Your task to perform on an android device: Open Maps and search for coffee Image 0: 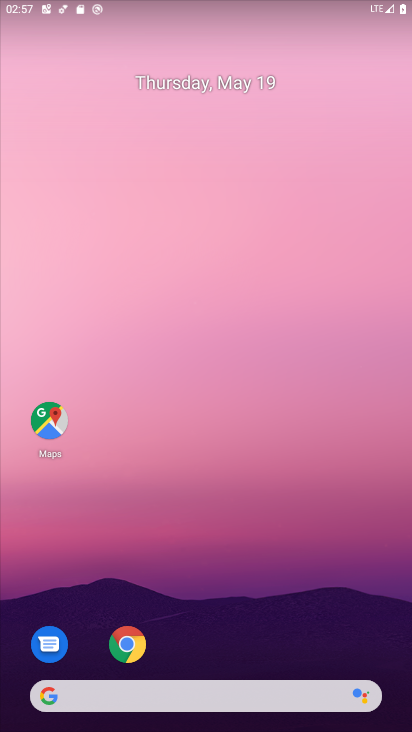
Step 0: click (52, 420)
Your task to perform on an android device: Open Maps and search for coffee Image 1: 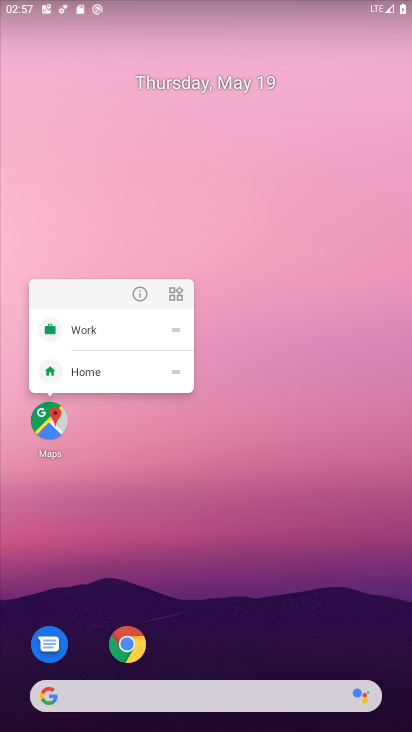
Step 1: click (54, 413)
Your task to perform on an android device: Open Maps and search for coffee Image 2: 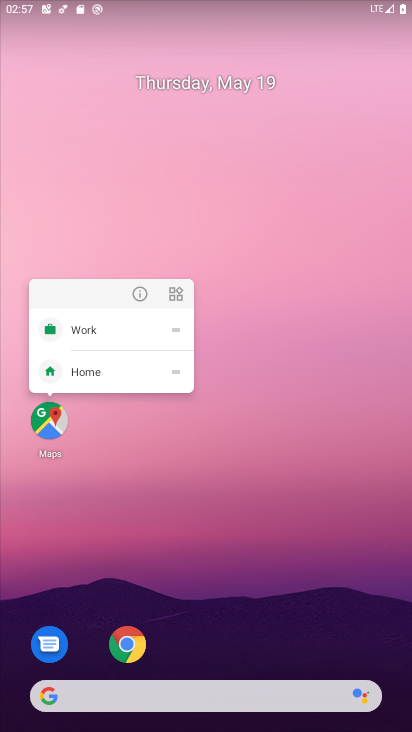
Step 2: click (54, 413)
Your task to perform on an android device: Open Maps and search for coffee Image 3: 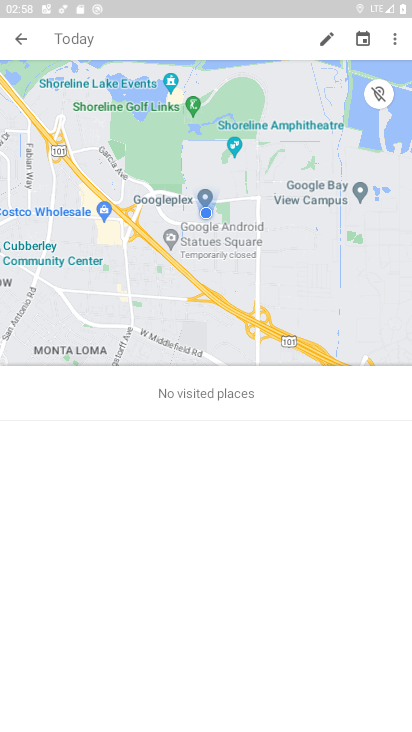
Step 3: click (26, 29)
Your task to perform on an android device: Open Maps and search for coffee Image 4: 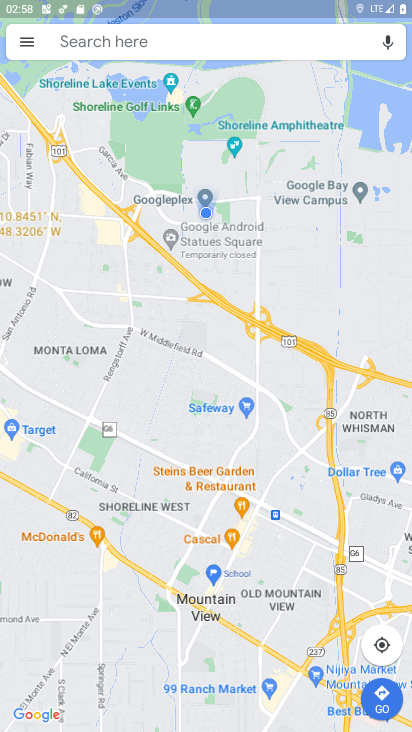
Step 4: click (183, 30)
Your task to perform on an android device: Open Maps and search for coffee Image 5: 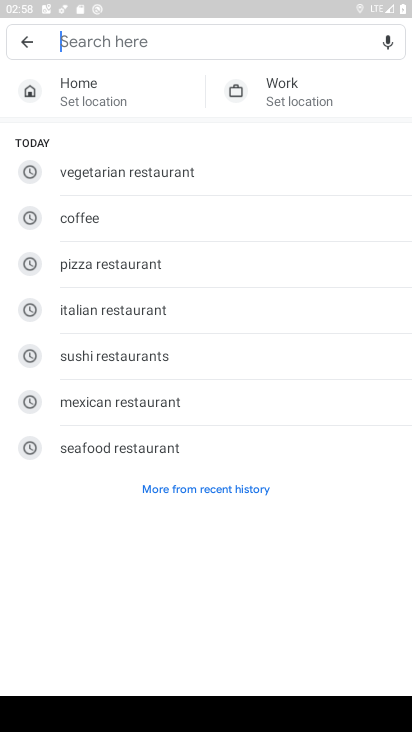
Step 5: click (103, 217)
Your task to perform on an android device: Open Maps and search for coffee Image 6: 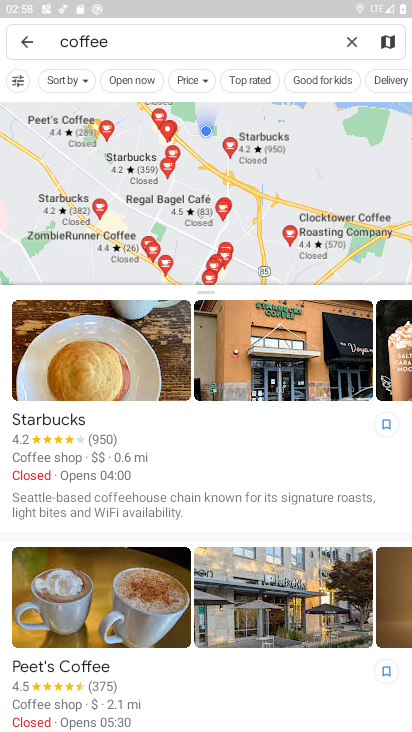
Step 6: task complete